Your task to perform on an android device: check android version Image 0: 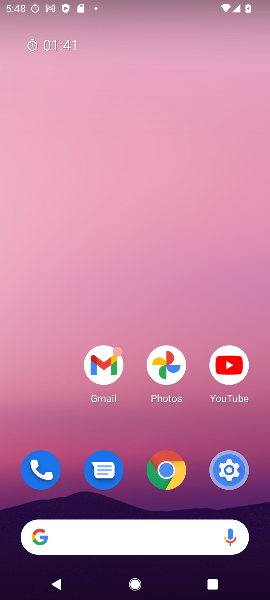
Step 0: click (222, 487)
Your task to perform on an android device: check android version Image 1: 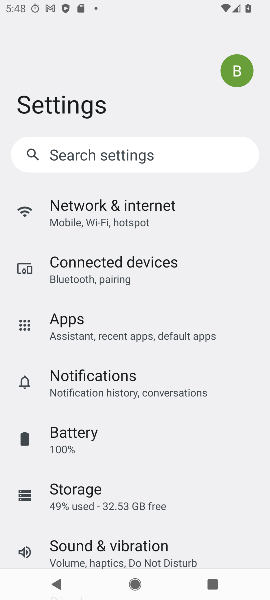
Step 1: drag from (149, 557) to (124, 105)
Your task to perform on an android device: check android version Image 2: 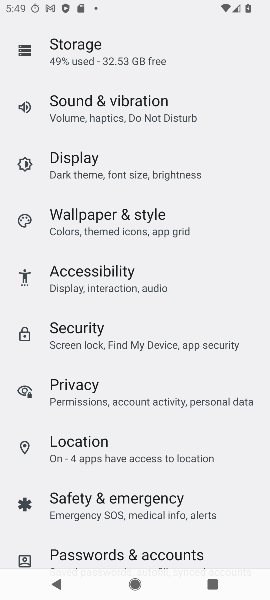
Step 2: drag from (154, 547) to (64, 138)
Your task to perform on an android device: check android version Image 3: 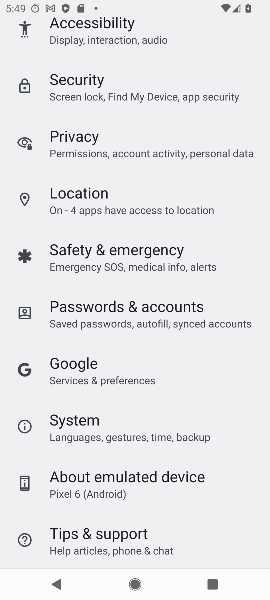
Step 3: click (39, 481)
Your task to perform on an android device: check android version Image 4: 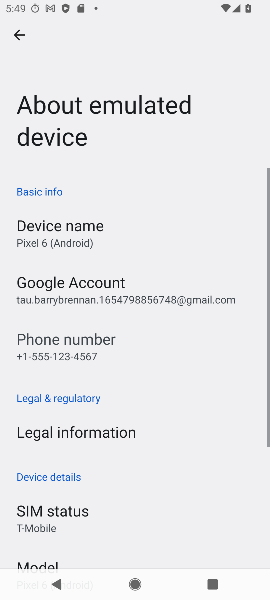
Step 4: drag from (83, 411) to (77, 130)
Your task to perform on an android device: check android version Image 5: 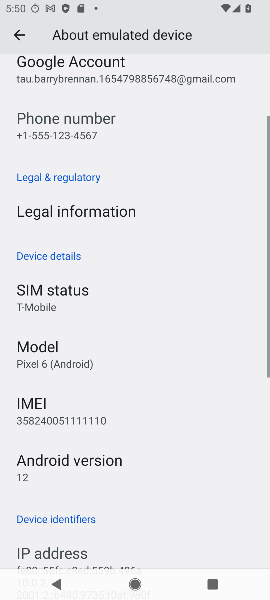
Step 5: click (105, 478)
Your task to perform on an android device: check android version Image 6: 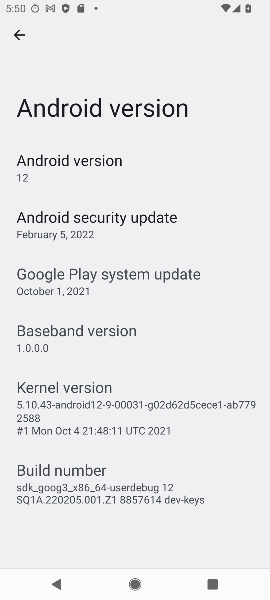
Step 6: task complete